Your task to perform on an android device: Open Amazon Image 0: 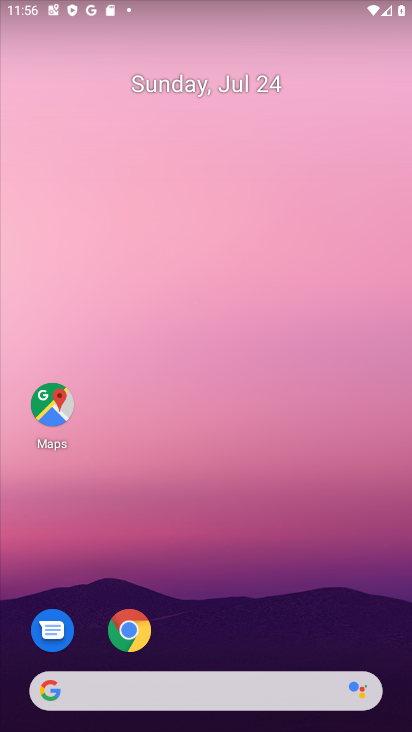
Step 0: drag from (279, 640) to (277, 546)
Your task to perform on an android device: Open Amazon Image 1: 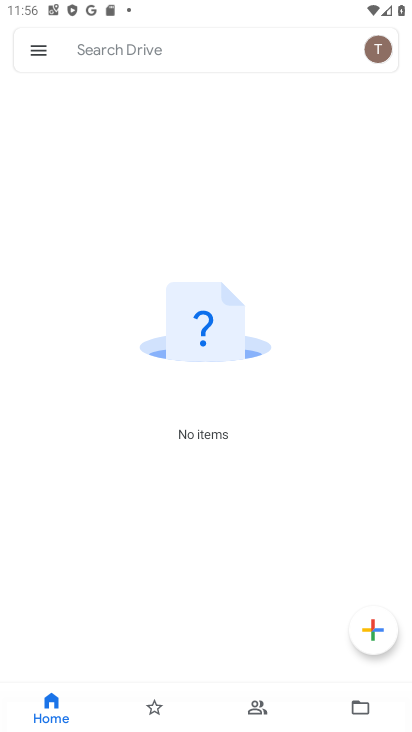
Step 1: press home button
Your task to perform on an android device: Open Amazon Image 2: 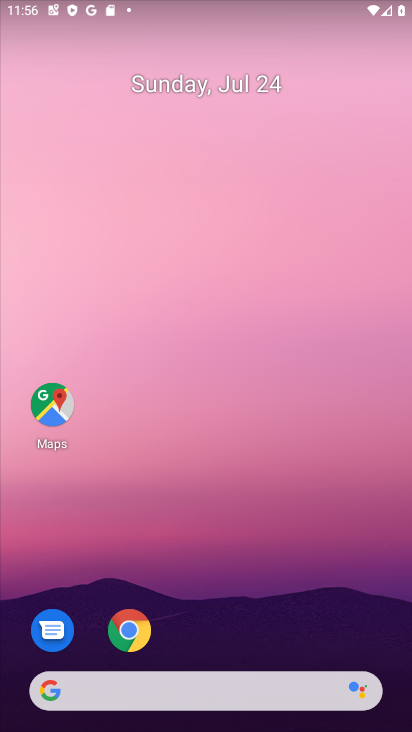
Step 2: click (117, 630)
Your task to perform on an android device: Open Amazon Image 3: 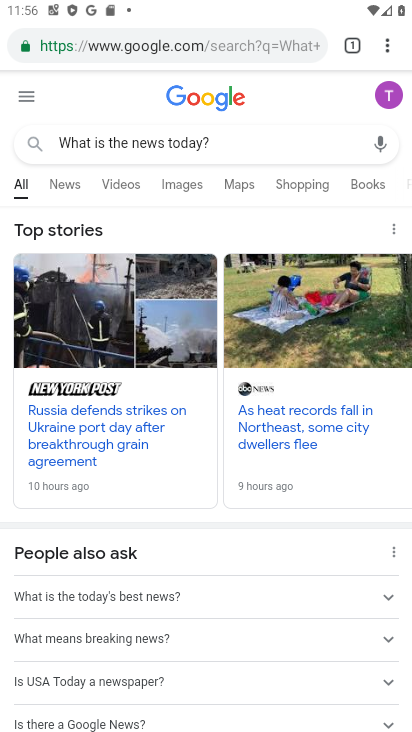
Step 3: click (221, 36)
Your task to perform on an android device: Open Amazon Image 4: 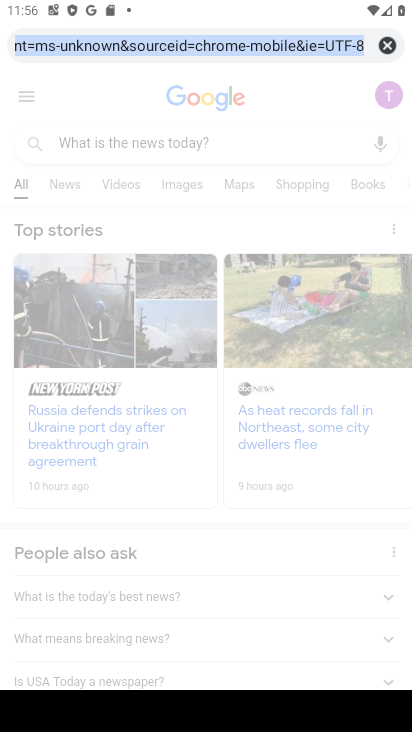
Step 4: type "Amazon"
Your task to perform on an android device: Open Amazon Image 5: 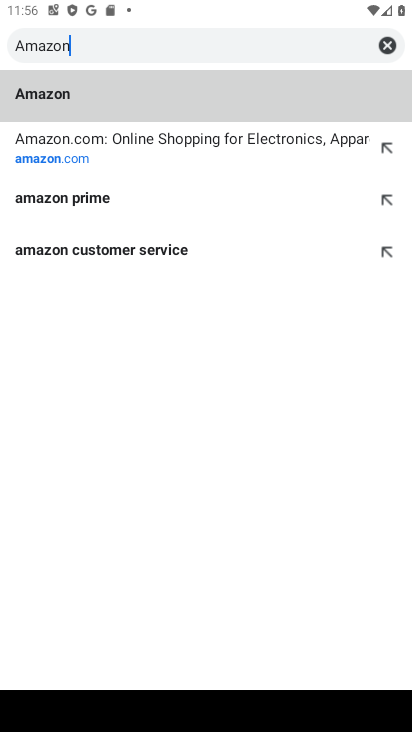
Step 5: click (80, 137)
Your task to perform on an android device: Open Amazon Image 6: 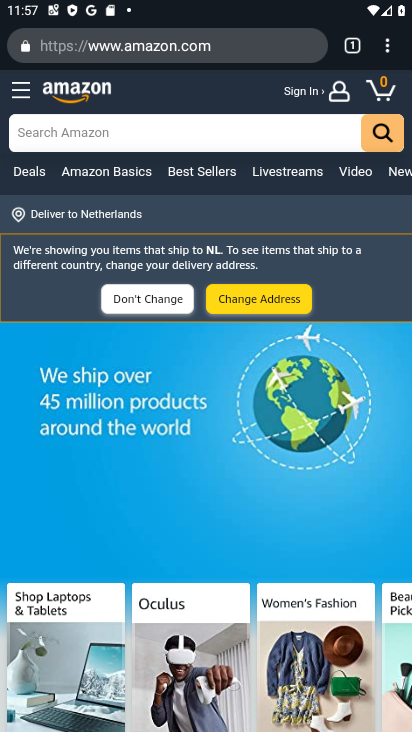
Step 6: task complete